Your task to perform on an android device: set the timer Image 0: 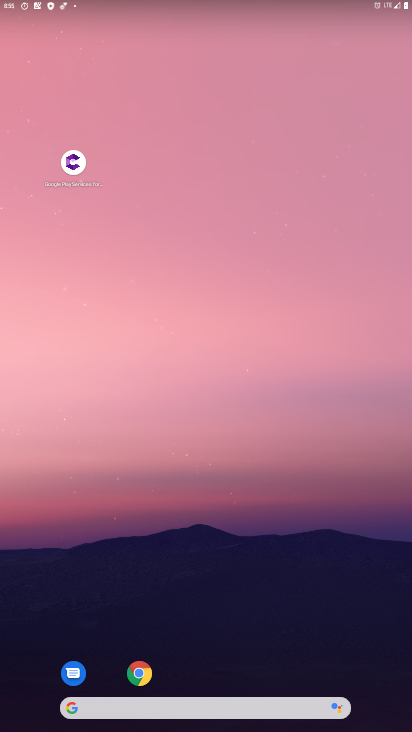
Step 0: drag from (235, 674) to (238, 82)
Your task to perform on an android device: set the timer Image 1: 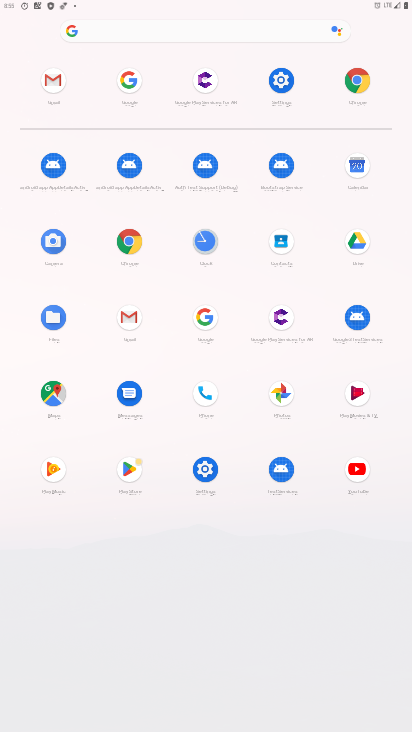
Step 1: click (204, 245)
Your task to perform on an android device: set the timer Image 2: 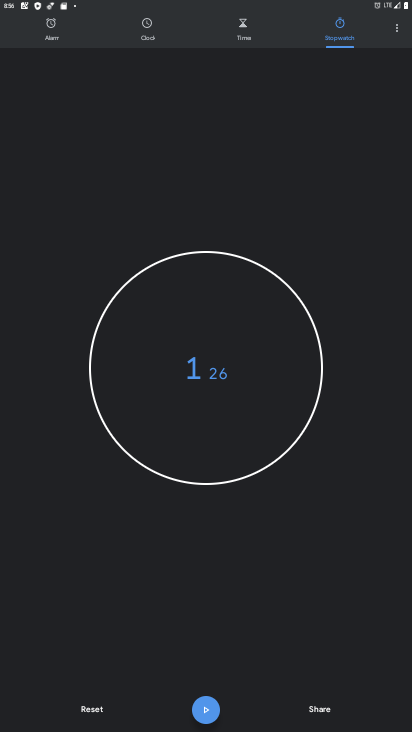
Step 2: click (245, 37)
Your task to perform on an android device: set the timer Image 3: 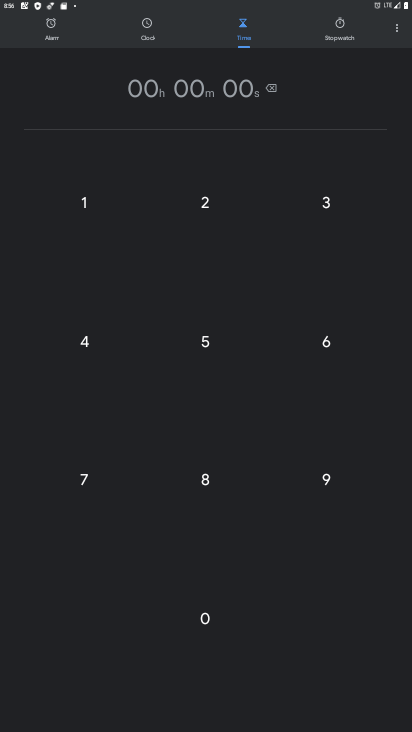
Step 3: click (220, 477)
Your task to perform on an android device: set the timer Image 4: 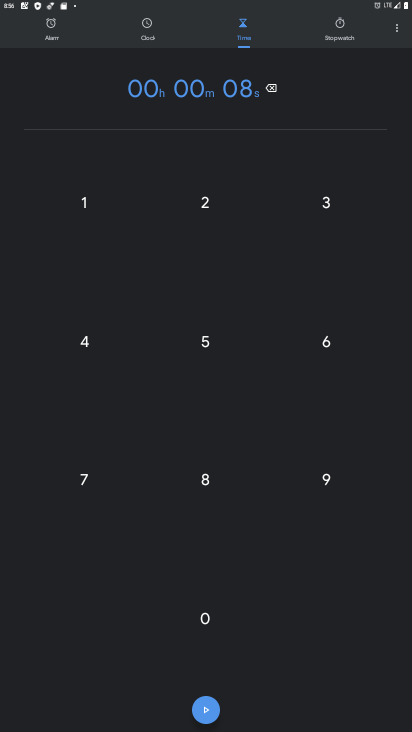
Step 4: click (217, 477)
Your task to perform on an android device: set the timer Image 5: 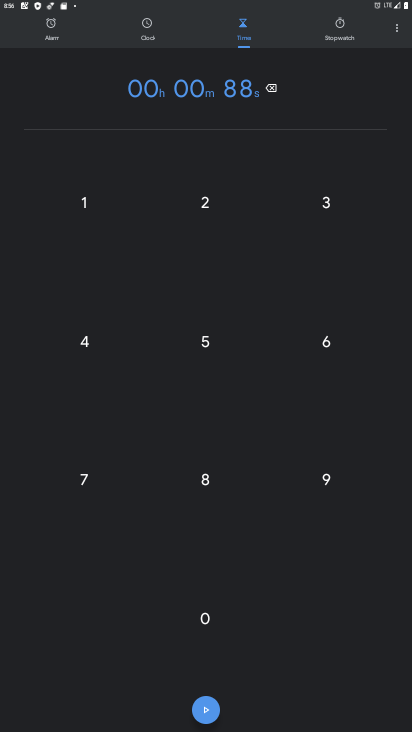
Step 5: task complete